Your task to perform on an android device: Search for pizza restaurants on Maps Image 0: 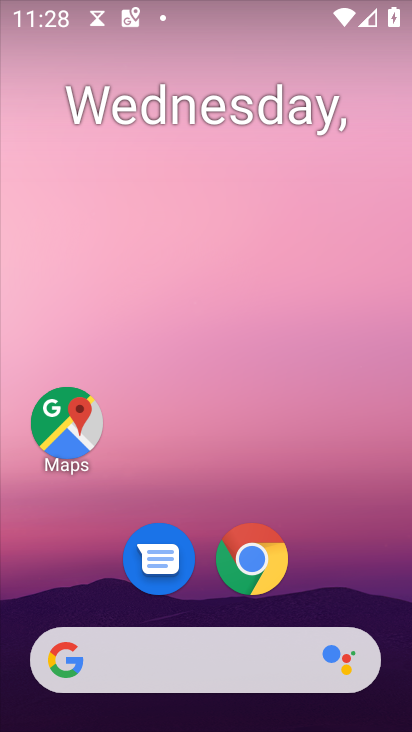
Step 0: click (61, 414)
Your task to perform on an android device: Search for pizza restaurants on Maps Image 1: 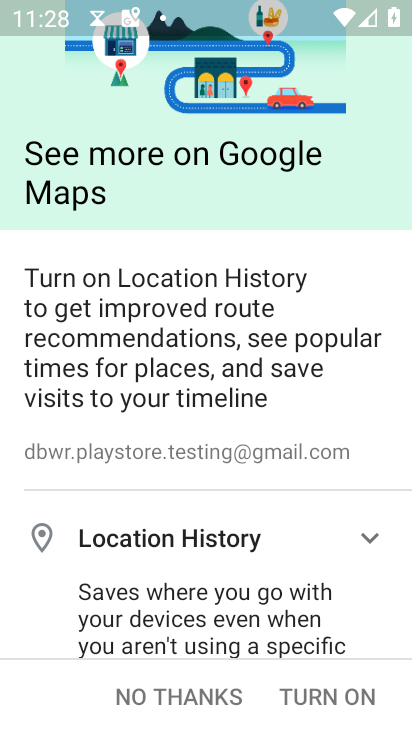
Step 1: click (187, 693)
Your task to perform on an android device: Search for pizza restaurants on Maps Image 2: 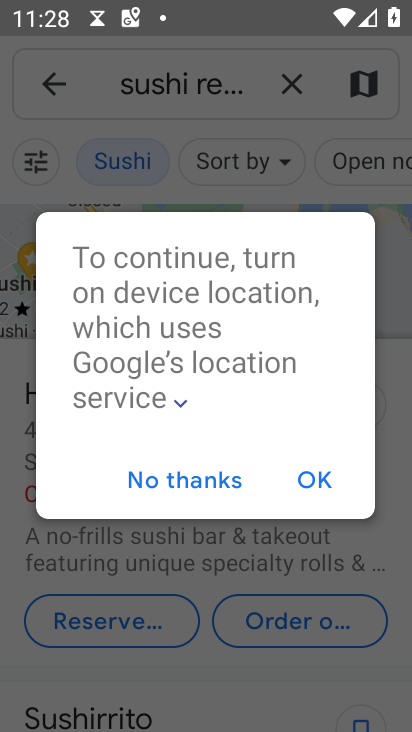
Step 2: click (224, 483)
Your task to perform on an android device: Search for pizza restaurants on Maps Image 3: 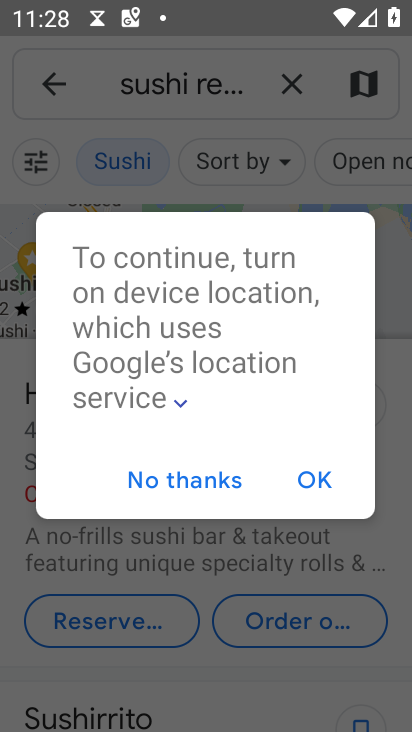
Step 3: click (218, 486)
Your task to perform on an android device: Search for pizza restaurants on Maps Image 4: 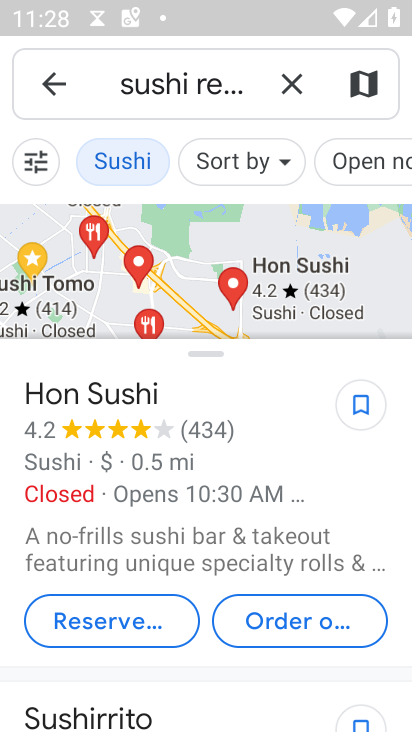
Step 4: click (293, 82)
Your task to perform on an android device: Search for pizza restaurants on Maps Image 5: 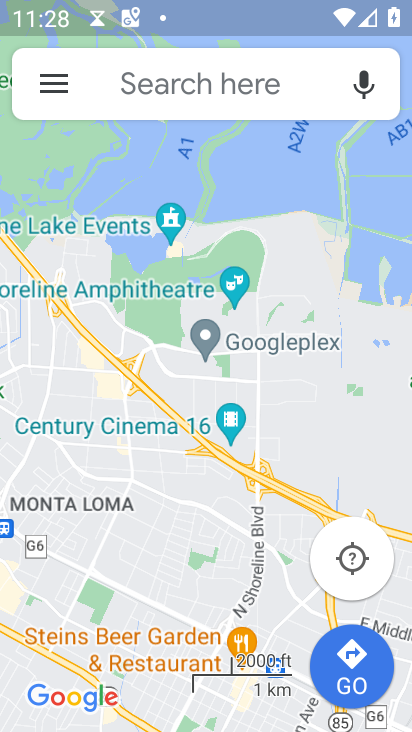
Step 5: click (220, 100)
Your task to perform on an android device: Search for pizza restaurants on Maps Image 6: 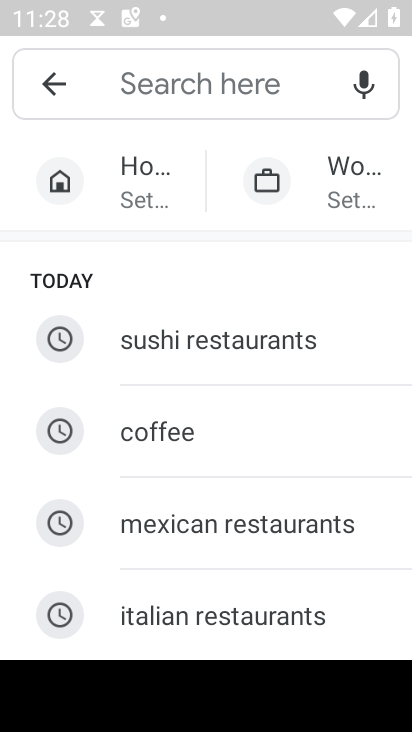
Step 6: click (208, 82)
Your task to perform on an android device: Search for pizza restaurants on Maps Image 7: 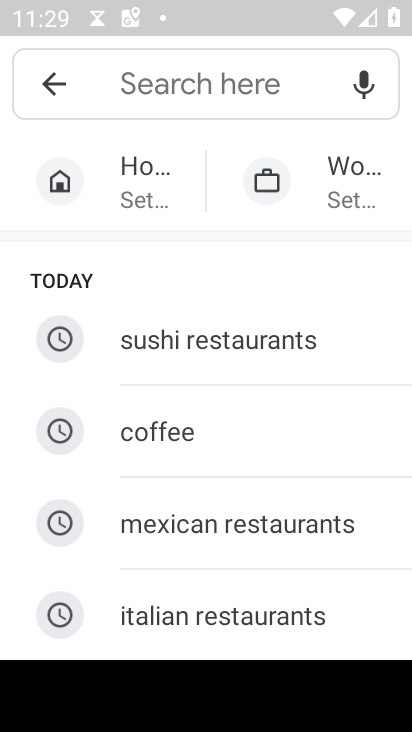
Step 7: type "Pizza restaurants"
Your task to perform on an android device: Search for pizza restaurants on Maps Image 8: 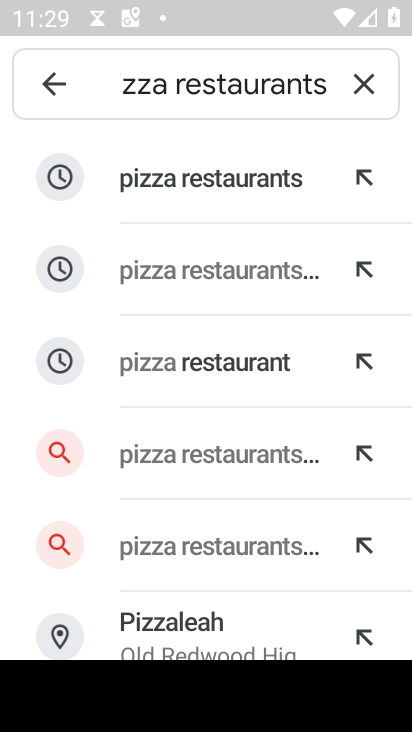
Step 8: click (275, 192)
Your task to perform on an android device: Search for pizza restaurants on Maps Image 9: 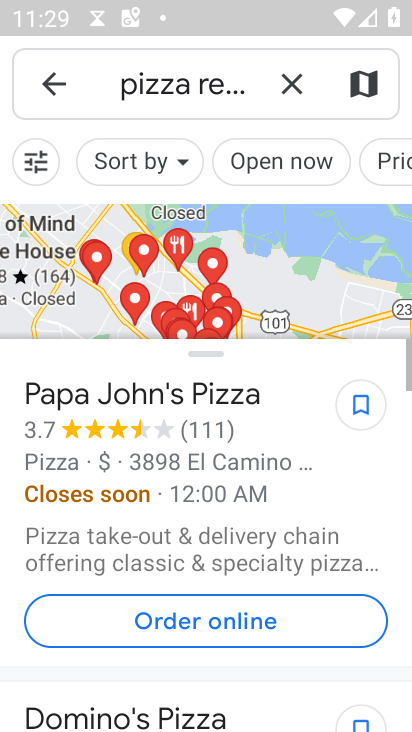
Step 9: task complete